Your task to perform on an android device: make emails show in primary in the gmail app Image 0: 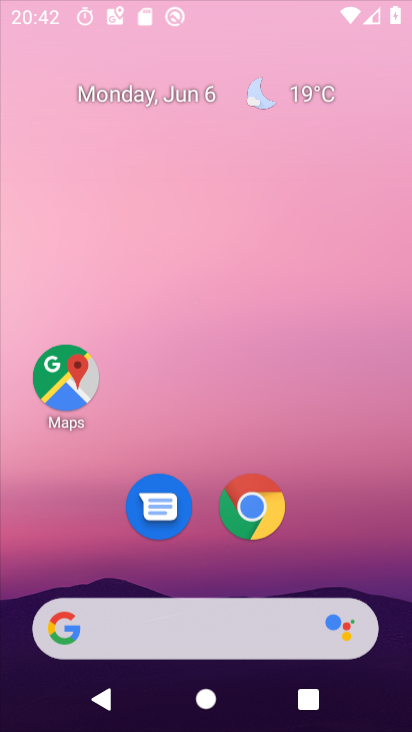
Step 0: press home button
Your task to perform on an android device: make emails show in primary in the gmail app Image 1: 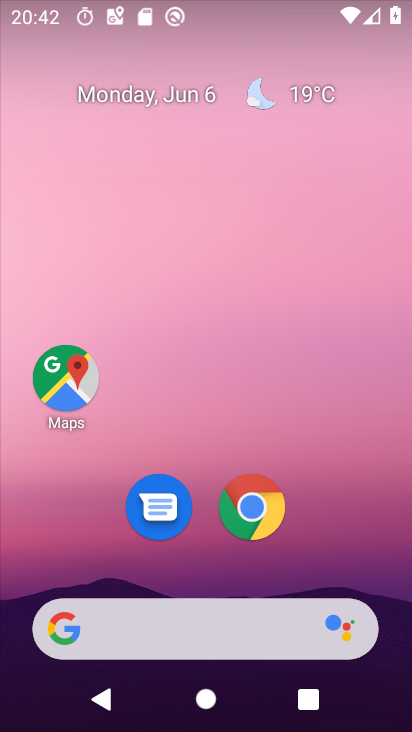
Step 1: drag from (368, 549) to (353, 188)
Your task to perform on an android device: make emails show in primary in the gmail app Image 2: 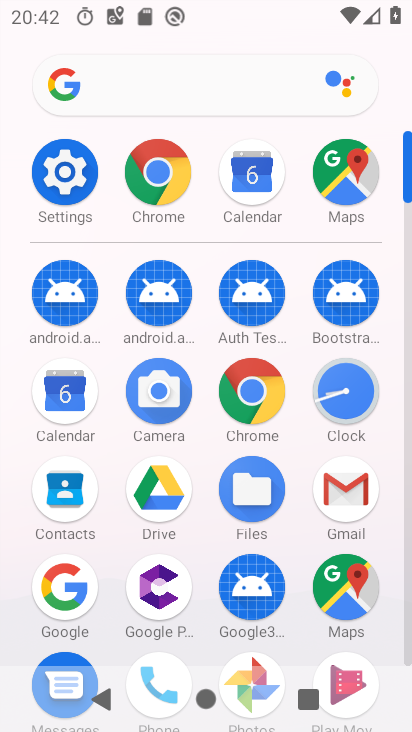
Step 2: click (331, 501)
Your task to perform on an android device: make emails show in primary in the gmail app Image 3: 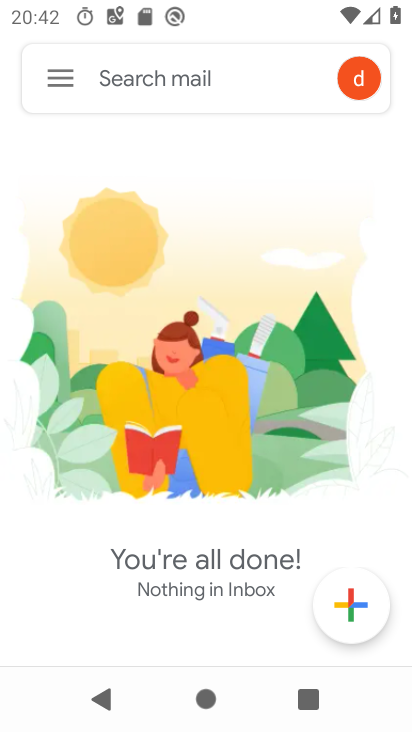
Step 3: click (47, 82)
Your task to perform on an android device: make emails show in primary in the gmail app Image 4: 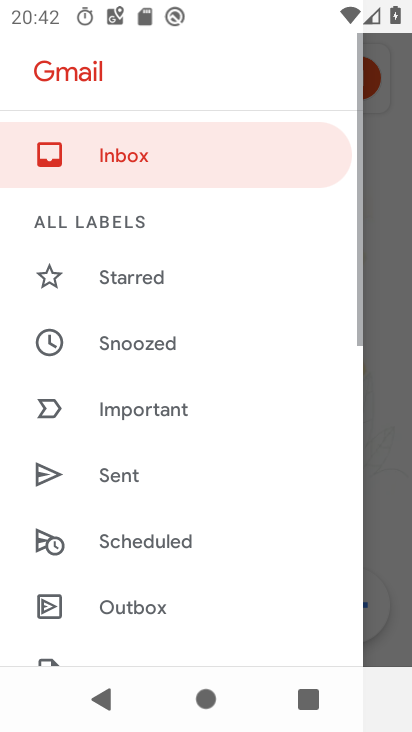
Step 4: task complete